Your task to perform on an android device: Open settings on Google Maps Image 0: 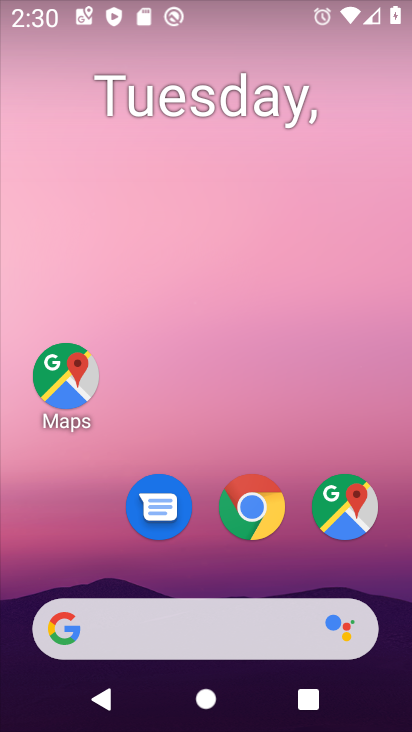
Step 0: click (352, 508)
Your task to perform on an android device: Open settings on Google Maps Image 1: 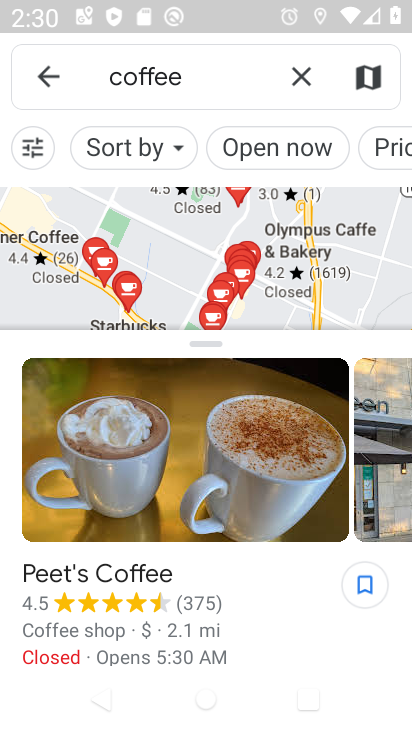
Step 1: click (299, 80)
Your task to perform on an android device: Open settings on Google Maps Image 2: 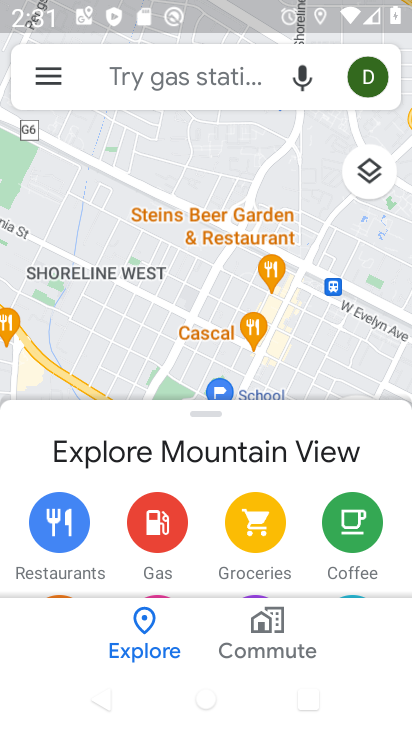
Step 2: task complete